Your task to perform on an android device: Open Android settings Image 0: 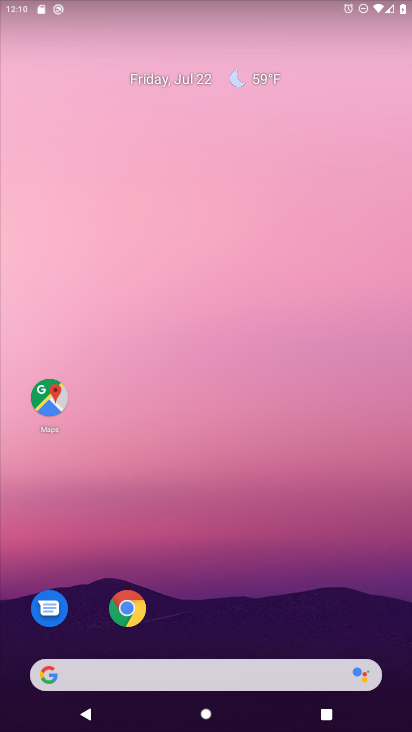
Step 0: drag from (346, 617) to (209, 47)
Your task to perform on an android device: Open Android settings Image 1: 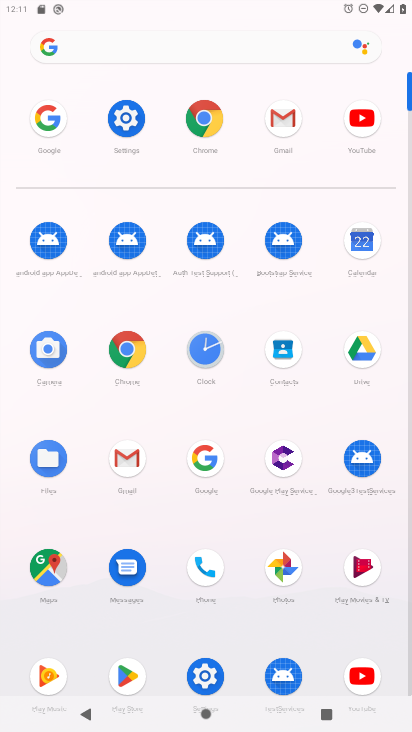
Step 1: click (207, 664)
Your task to perform on an android device: Open Android settings Image 2: 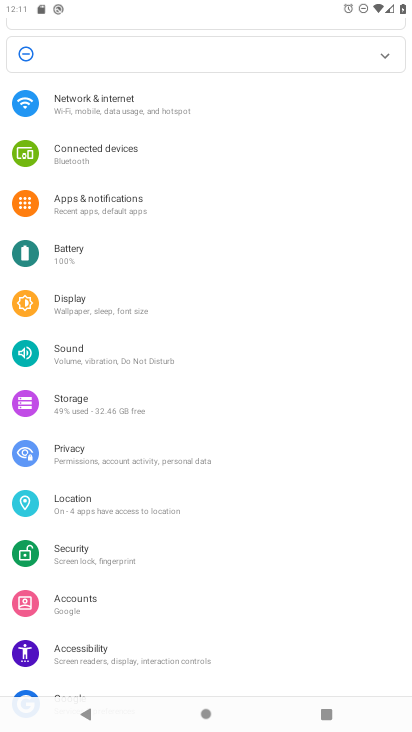
Step 2: task complete